Your task to perform on an android device: Open the Play Movies app and select the watchlist tab. Image 0: 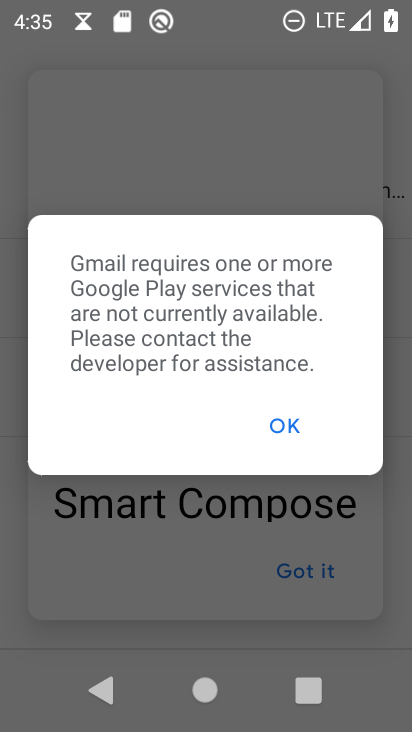
Step 0: press home button
Your task to perform on an android device: Open the Play Movies app and select the watchlist tab. Image 1: 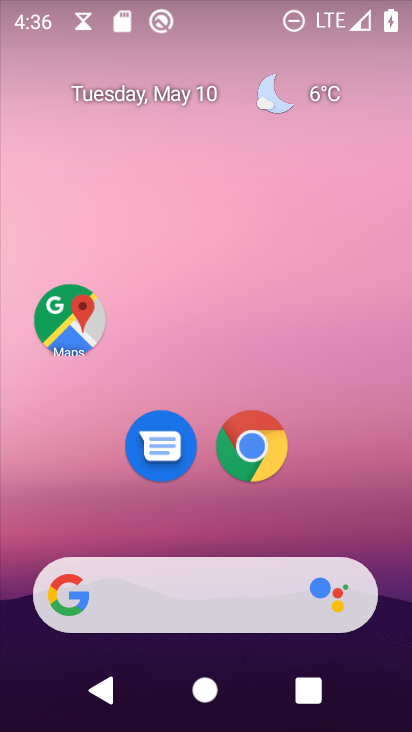
Step 1: drag from (215, 525) to (176, 88)
Your task to perform on an android device: Open the Play Movies app and select the watchlist tab. Image 2: 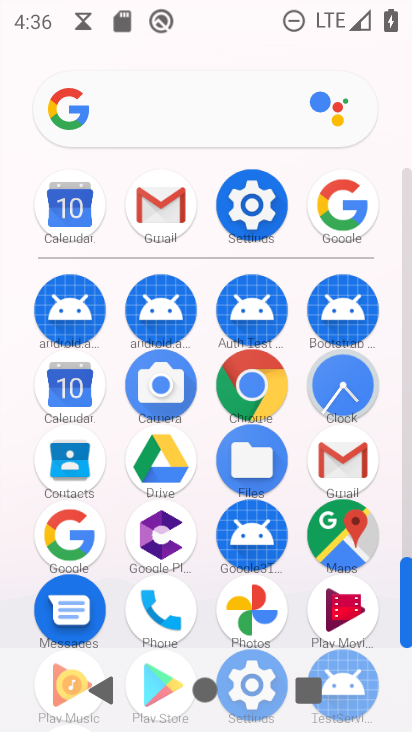
Step 2: click (344, 605)
Your task to perform on an android device: Open the Play Movies app and select the watchlist tab. Image 3: 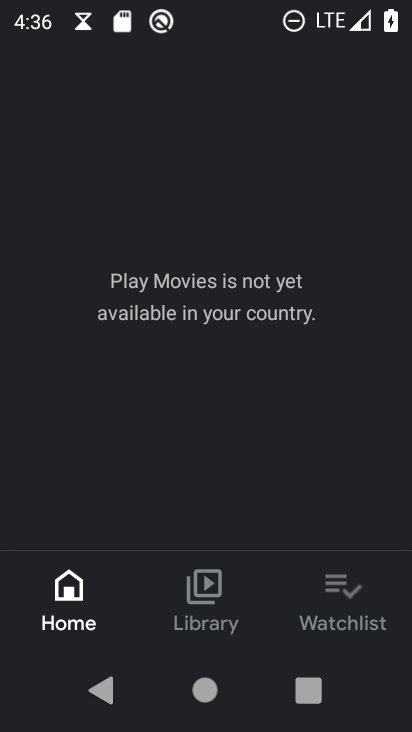
Step 3: click (344, 602)
Your task to perform on an android device: Open the Play Movies app and select the watchlist tab. Image 4: 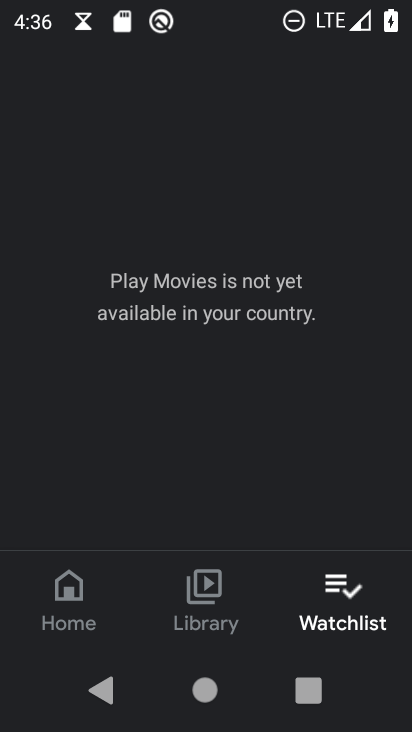
Step 4: task complete